Your task to perform on an android device: open sync settings in chrome Image 0: 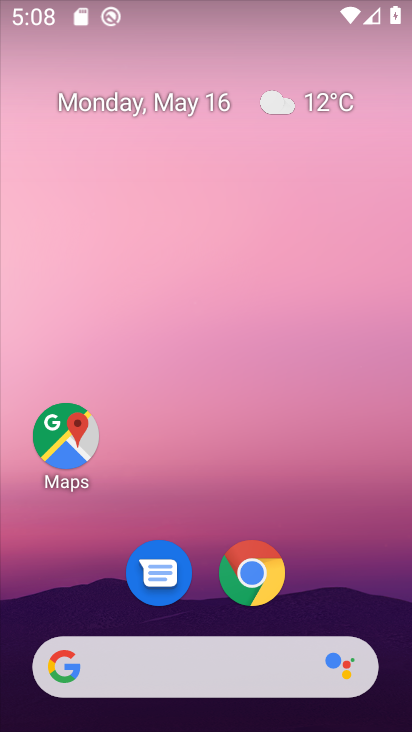
Step 0: click (247, 577)
Your task to perform on an android device: open sync settings in chrome Image 1: 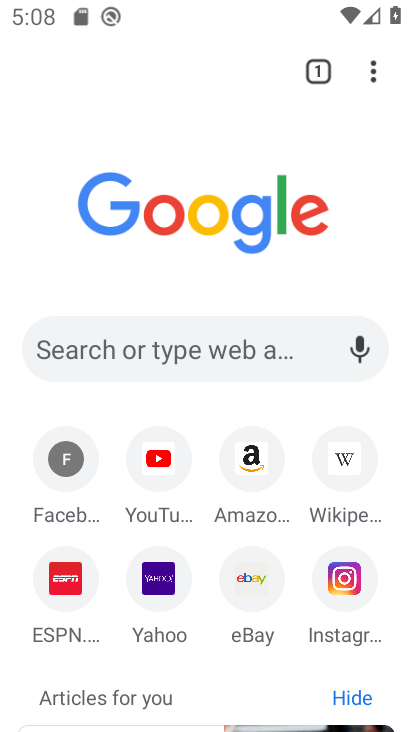
Step 1: drag from (373, 65) to (127, 595)
Your task to perform on an android device: open sync settings in chrome Image 2: 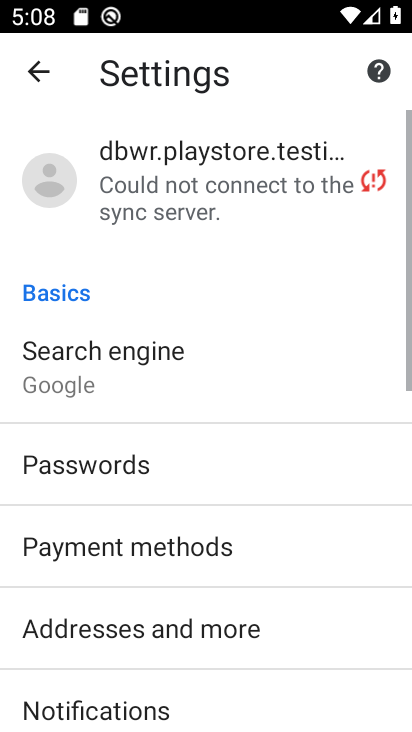
Step 2: click (182, 174)
Your task to perform on an android device: open sync settings in chrome Image 3: 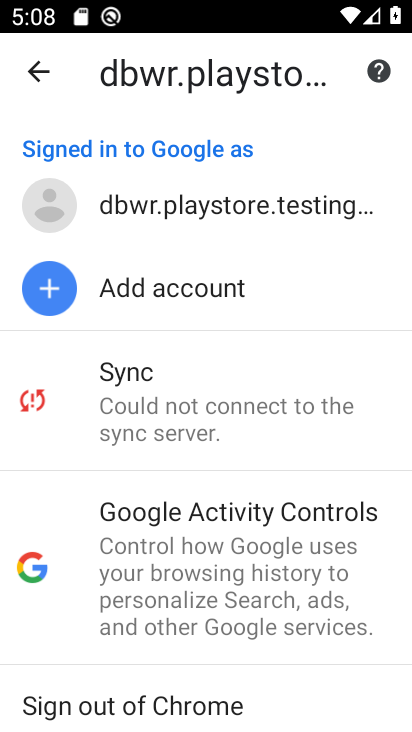
Step 3: task complete